Your task to perform on an android device: turn smart compose on in the gmail app Image 0: 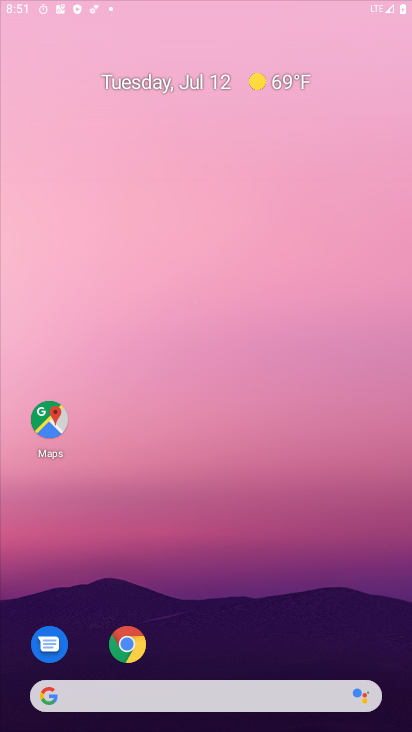
Step 0: press home button
Your task to perform on an android device: turn smart compose on in the gmail app Image 1: 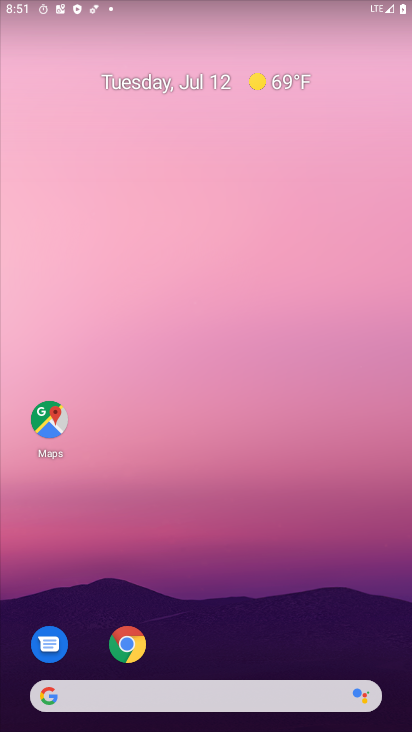
Step 1: drag from (223, 659) to (221, 18)
Your task to perform on an android device: turn smart compose on in the gmail app Image 2: 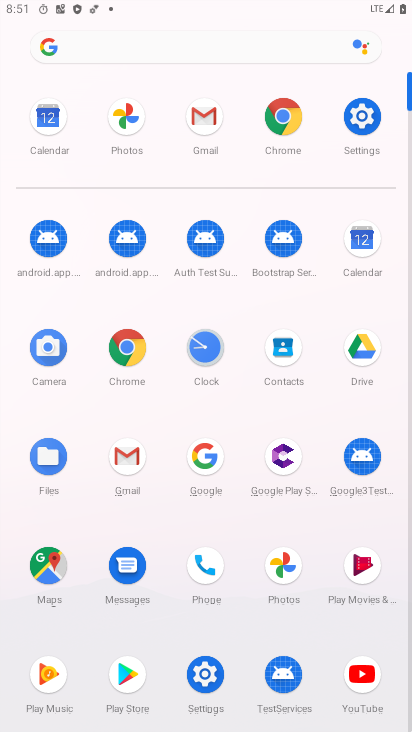
Step 2: click (200, 111)
Your task to perform on an android device: turn smart compose on in the gmail app Image 3: 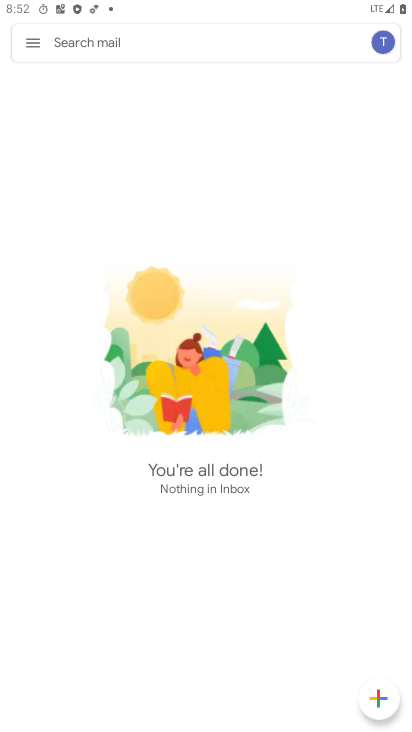
Step 3: click (31, 46)
Your task to perform on an android device: turn smart compose on in the gmail app Image 4: 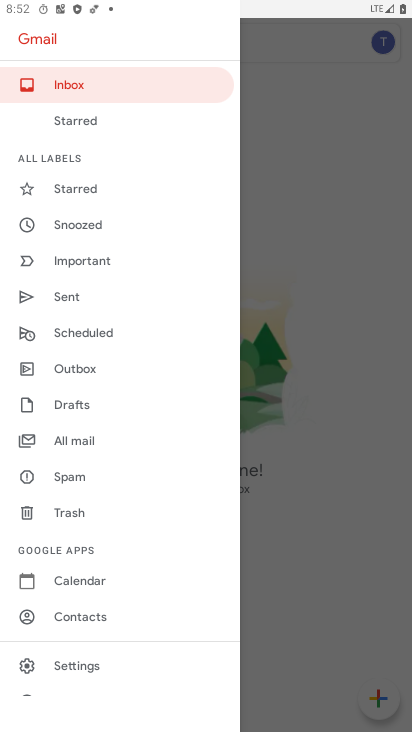
Step 4: click (113, 664)
Your task to perform on an android device: turn smart compose on in the gmail app Image 5: 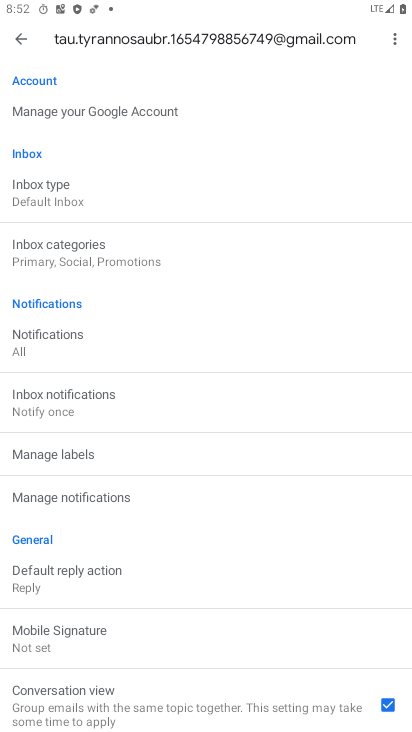
Step 5: task complete